Your task to perform on an android device: Open Chrome and go to the settings page Image 0: 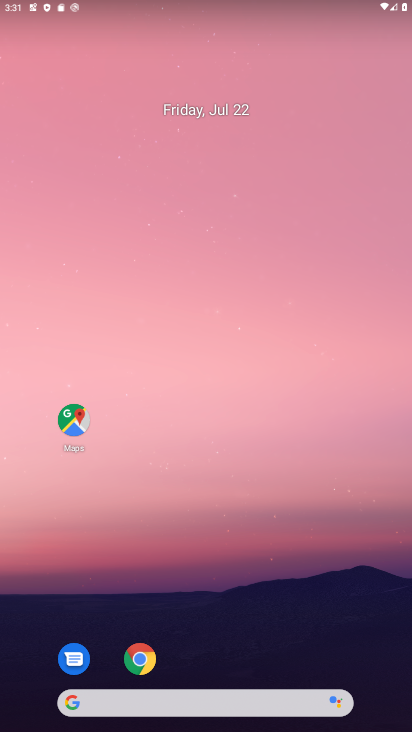
Step 0: click (146, 664)
Your task to perform on an android device: Open Chrome and go to the settings page Image 1: 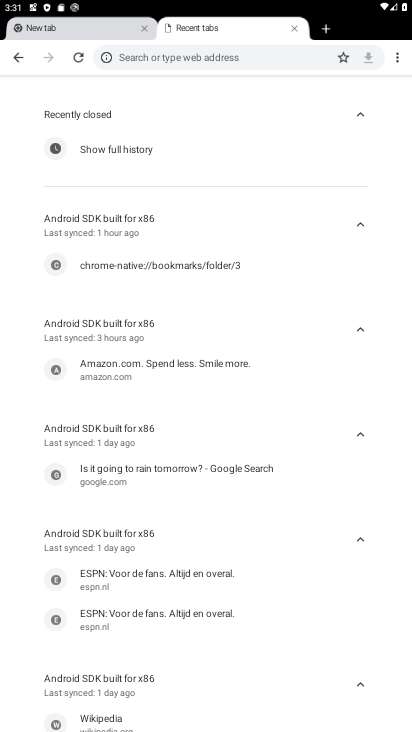
Step 1: click (405, 63)
Your task to perform on an android device: Open Chrome and go to the settings page Image 2: 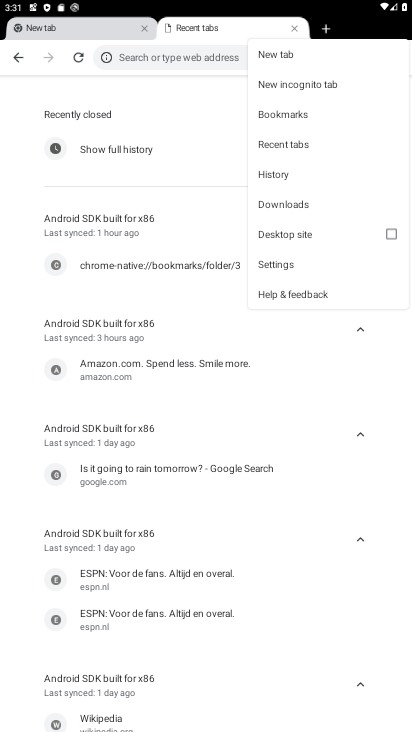
Step 2: click (269, 255)
Your task to perform on an android device: Open Chrome and go to the settings page Image 3: 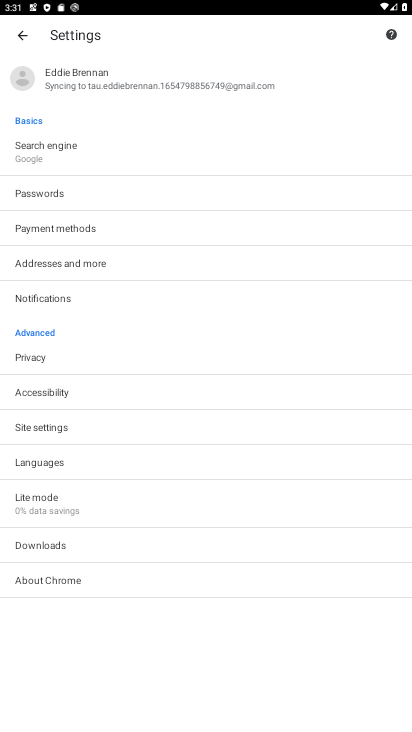
Step 3: task complete